Your task to perform on an android device: turn on priority inbox in the gmail app Image 0: 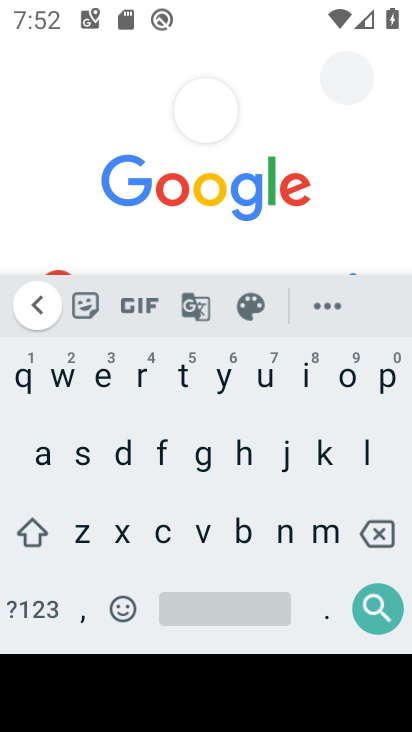
Step 0: press back button
Your task to perform on an android device: turn on priority inbox in the gmail app Image 1: 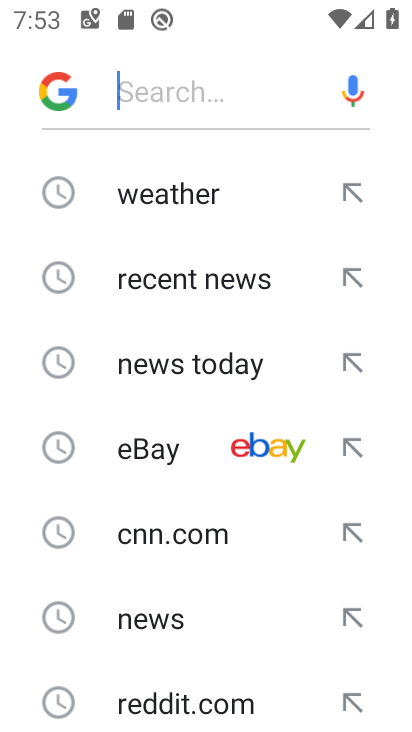
Step 1: press back button
Your task to perform on an android device: turn on priority inbox in the gmail app Image 2: 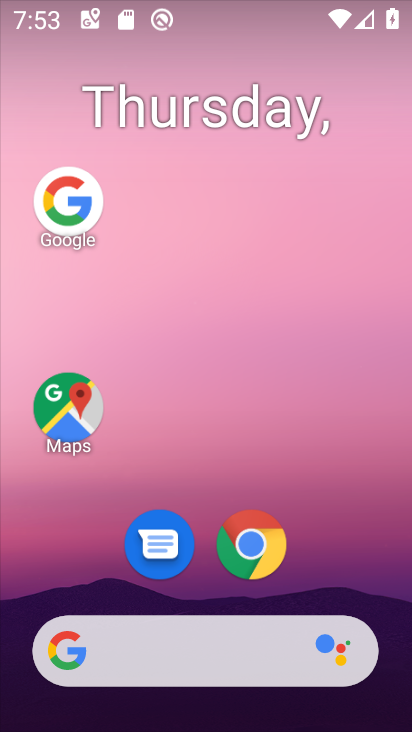
Step 2: drag from (278, 683) to (353, 99)
Your task to perform on an android device: turn on priority inbox in the gmail app Image 3: 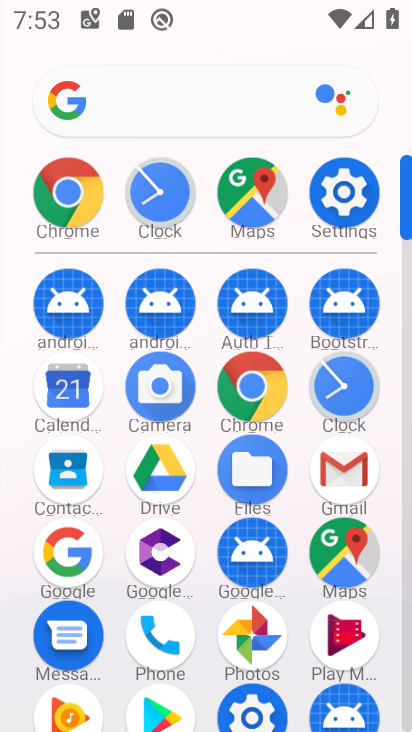
Step 3: click (320, 481)
Your task to perform on an android device: turn on priority inbox in the gmail app Image 4: 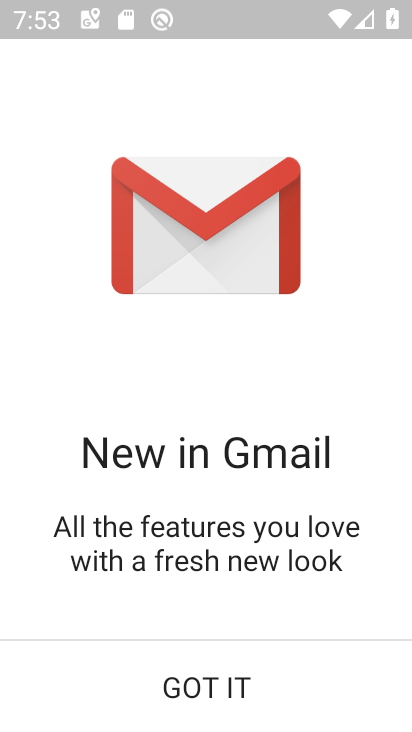
Step 4: click (237, 669)
Your task to perform on an android device: turn on priority inbox in the gmail app Image 5: 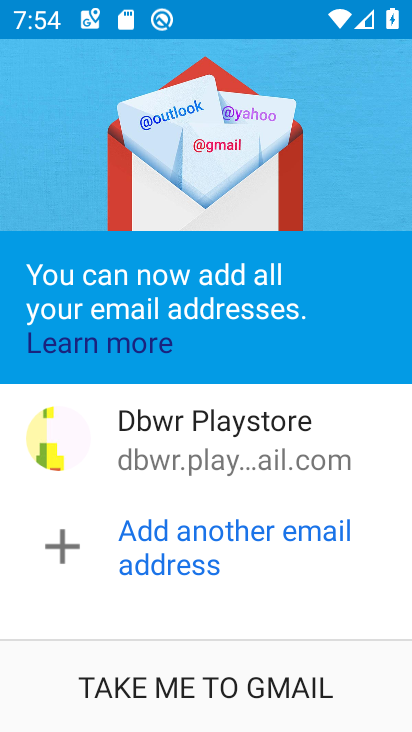
Step 5: click (204, 701)
Your task to perform on an android device: turn on priority inbox in the gmail app Image 6: 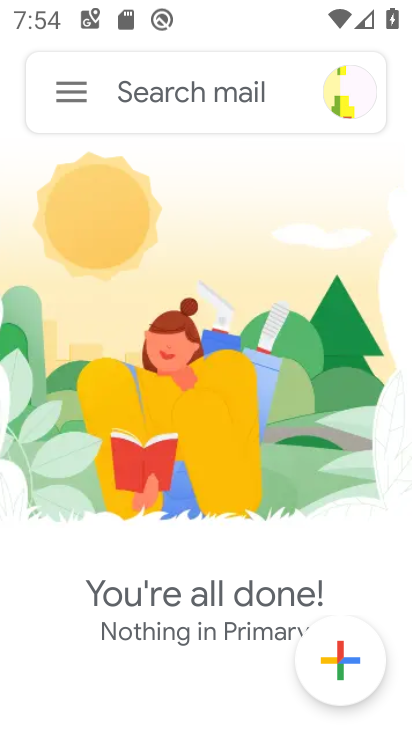
Step 6: click (71, 92)
Your task to perform on an android device: turn on priority inbox in the gmail app Image 7: 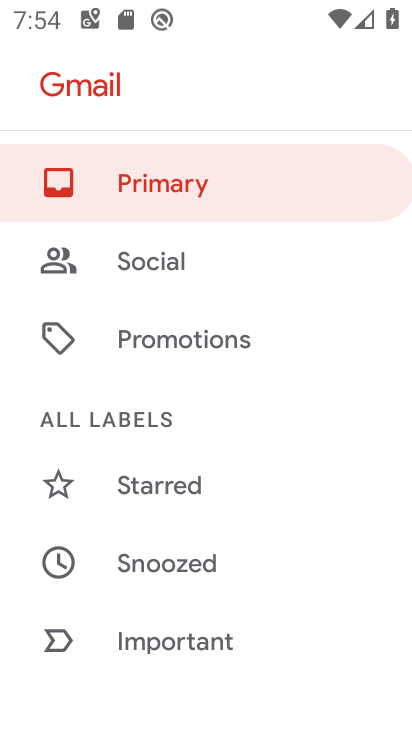
Step 7: drag from (145, 542) to (192, 96)
Your task to perform on an android device: turn on priority inbox in the gmail app Image 8: 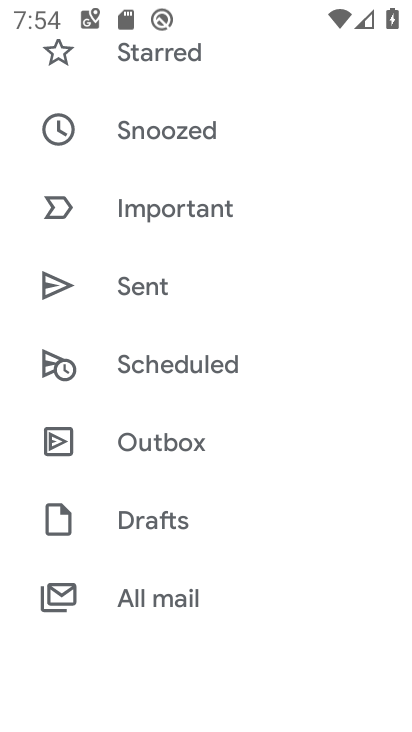
Step 8: drag from (153, 367) to (179, 192)
Your task to perform on an android device: turn on priority inbox in the gmail app Image 9: 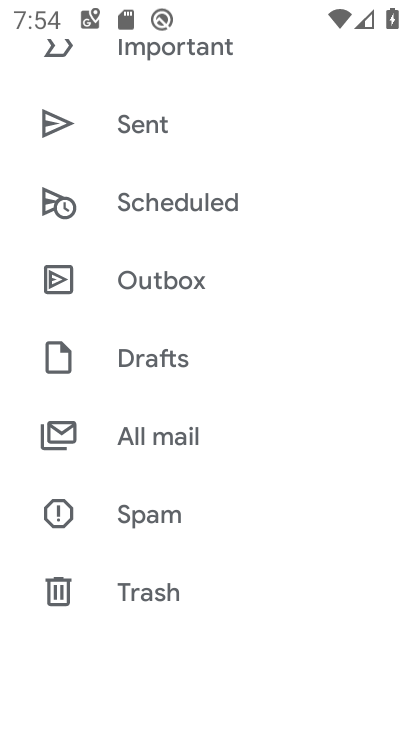
Step 9: drag from (187, 427) to (192, 137)
Your task to perform on an android device: turn on priority inbox in the gmail app Image 10: 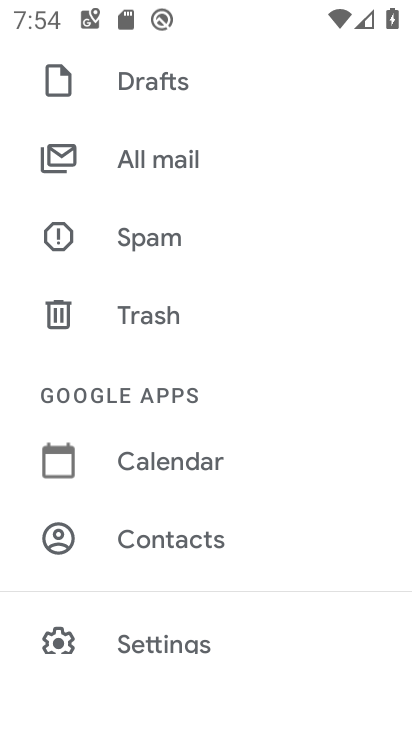
Step 10: click (153, 644)
Your task to perform on an android device: turn on priority inbox in the gmail app Image 11: 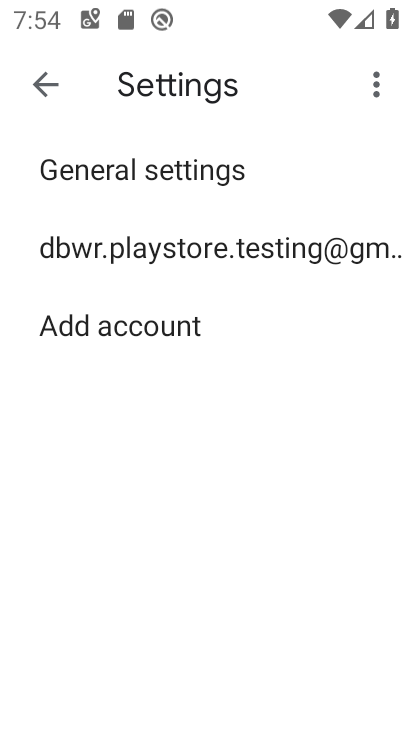
Step 11: click (175, 254)
Your task to perform on an android device: turn on priority inbox in the gmail app Image 12: 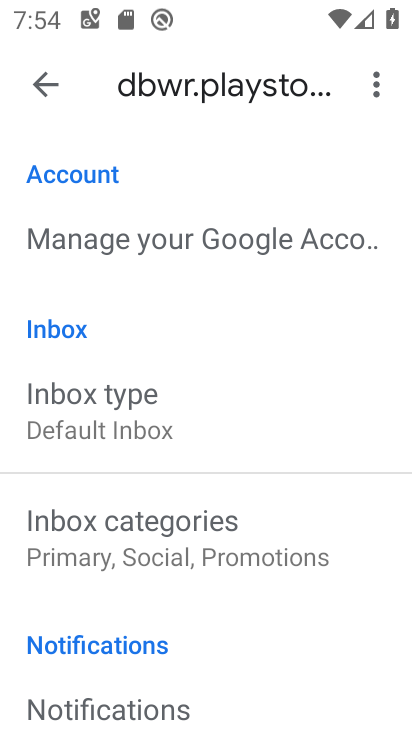
Step 12: click (150, 448)
Your task to perform on an android device: turn on priority inbox in the gmail app Image 13: 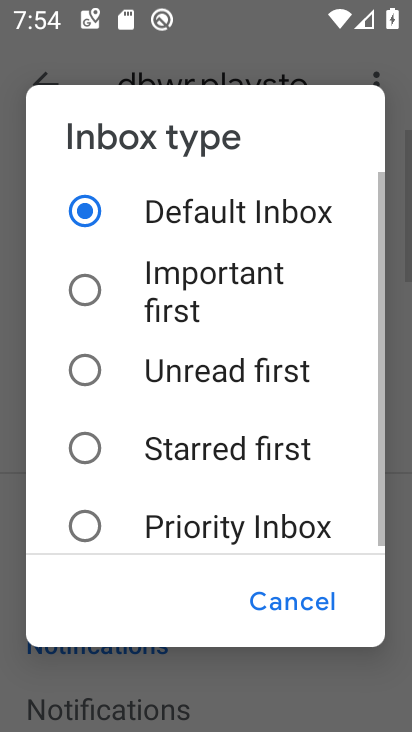
Step 13: click (178, 518)
Your task to perform on an android device: turn on priority inbox in the gmail app Image 14: 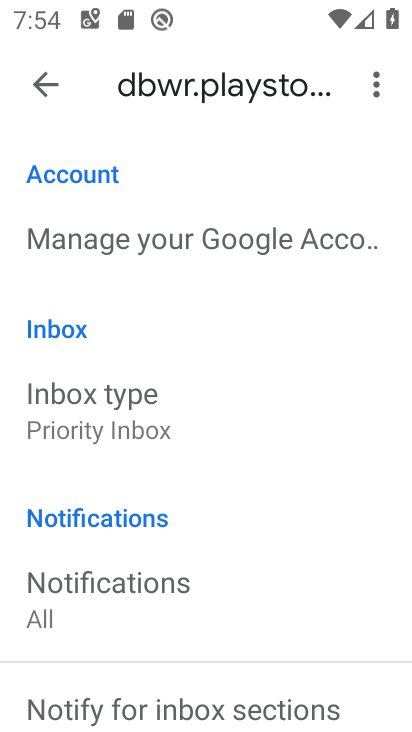
Step 14: task complete